Your task to perform on an android device: Go to Reddit.com Image 0: 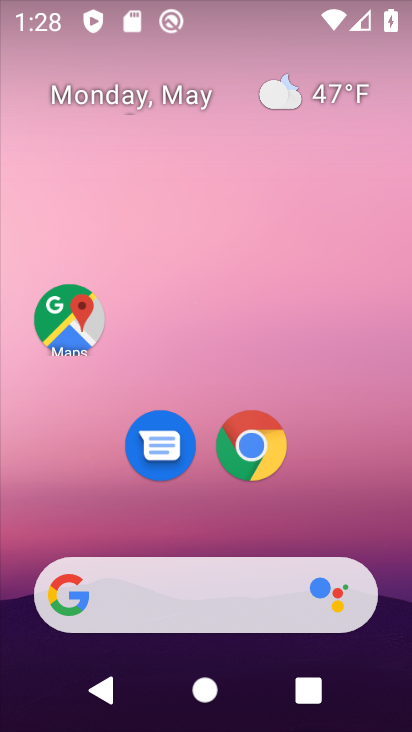
Step 0: click (258, 448)
Your task to perform on an android device: Go to Reddit.com Image 1: 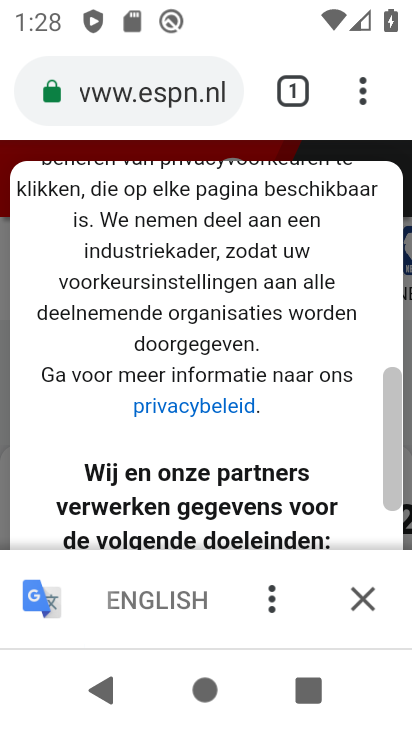
Step 1: click (187, 97)
Your task to perform on an android device: Go to Reddit.com Image 2: 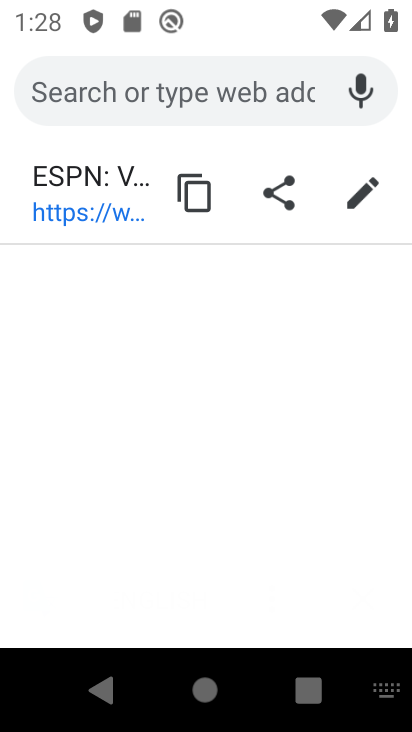
Step 2: type "Reddit.com"
Your task to perform on an android device: Go to Reddit.com Image 3: 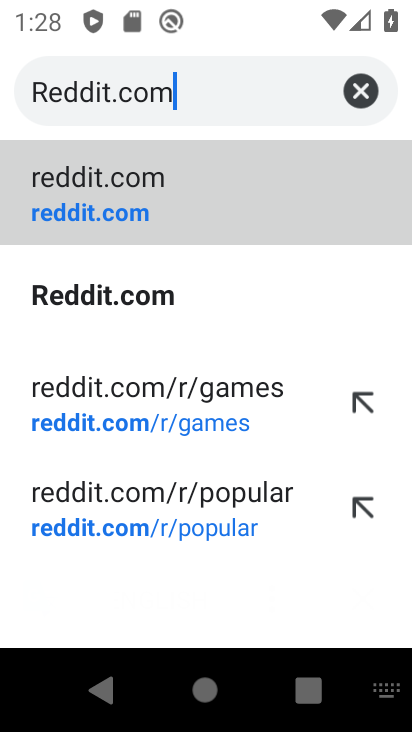
Step 3: click (48, 179)
Your task to perform on an android device: Go to Reddit.com Image 4: 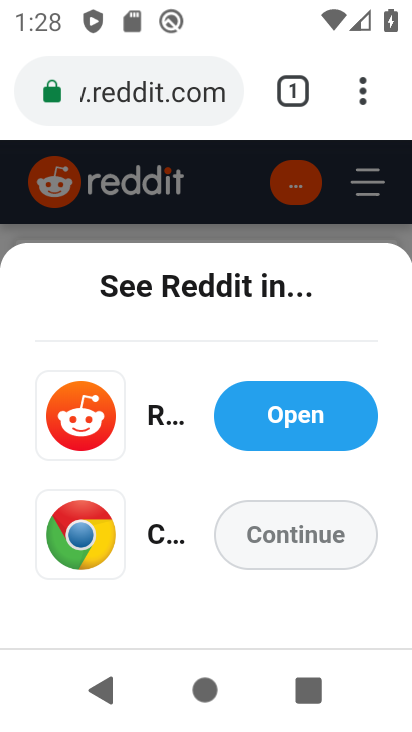
Step 4: task complete